Your task to perform on an android device: Go to Wikipedia Image 0: 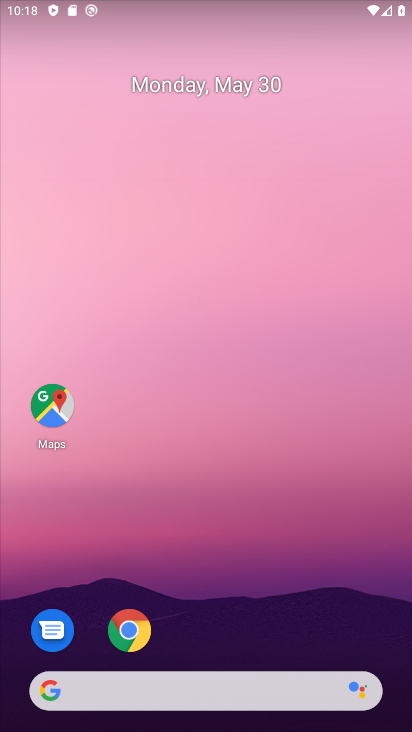
Step 0: click (110, 638)
Your task to perform on an android device: Go to Wikipedia Image 1: 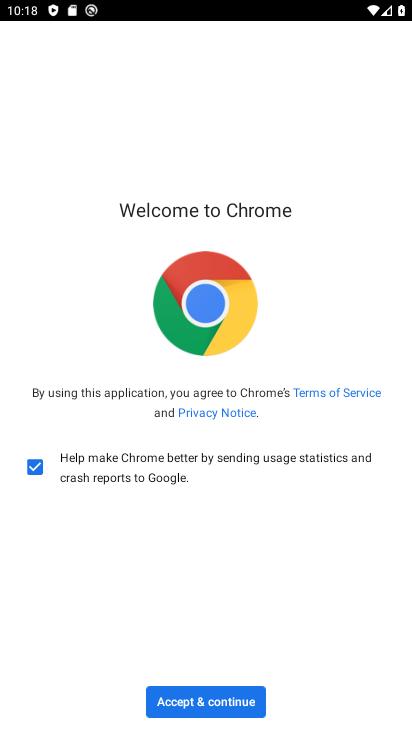
Step 1: click (196, 702)
Your task to perform on an android device: Go to Wikipedia Image 2: 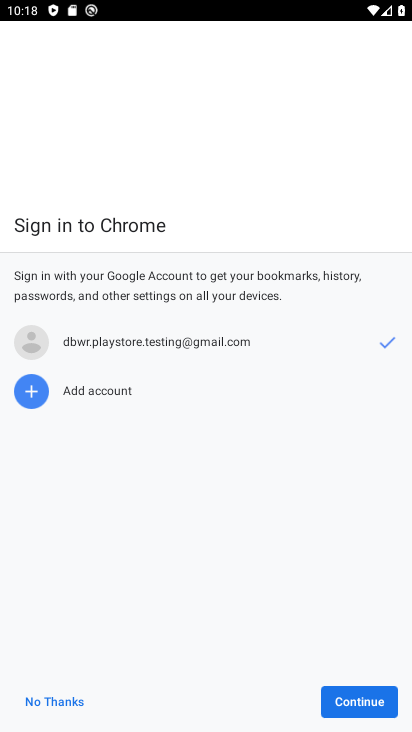
Step 2: click (369, 690)
Your task to perform on an android device: Go to Wikipedia Image 3: 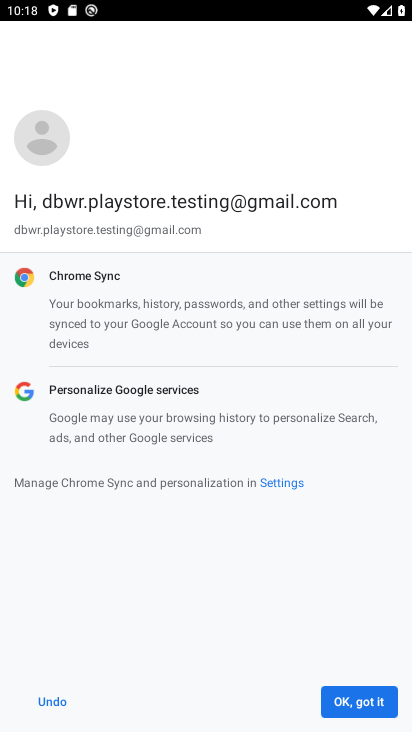
Step 3: click (369, 690)
Your task to perform on an android device: Go to Wikipedia Image 4: 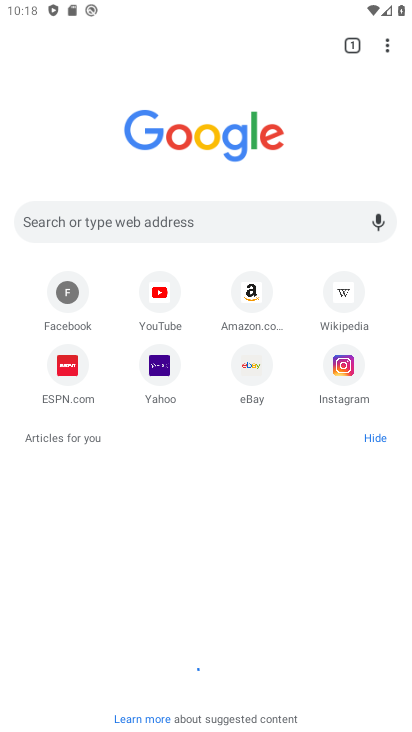
Step 4: click (356, 297)
Your task to perform on an android device: Go to Wikipedia Image 5: 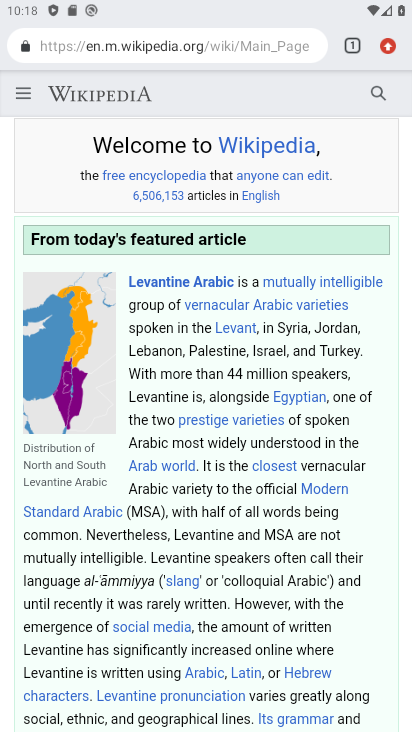
Step 5: task complete